Your task to perform on an android device: See recent photos Image 0: 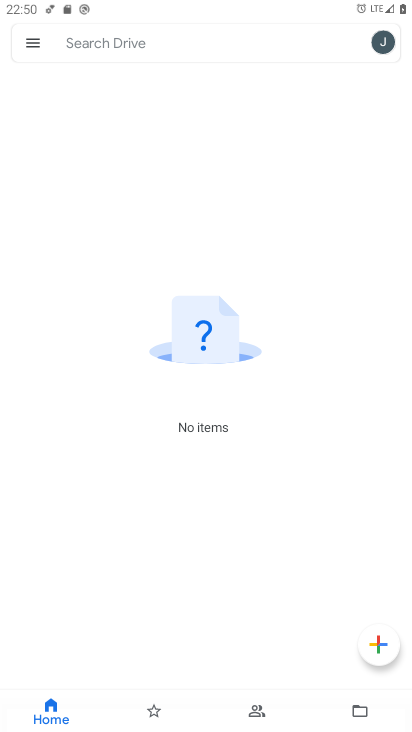
Step 0: press home button
Your task to perform on an android device: See recent photos Image 1: 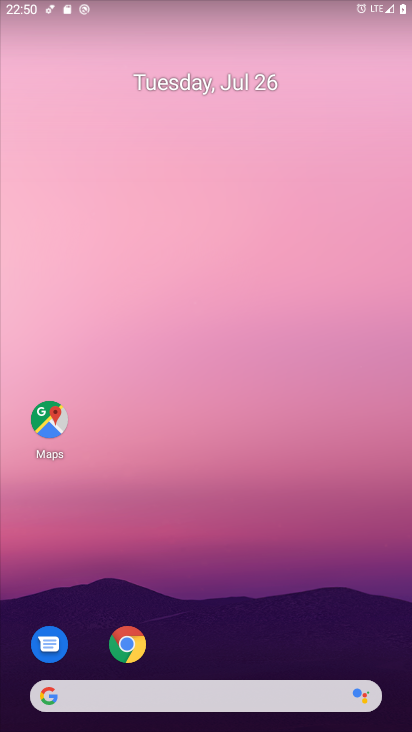
Step 1: drag from (197, 657) to (237, 95)
Your task to perform on an android device: See recent photos Image 2: 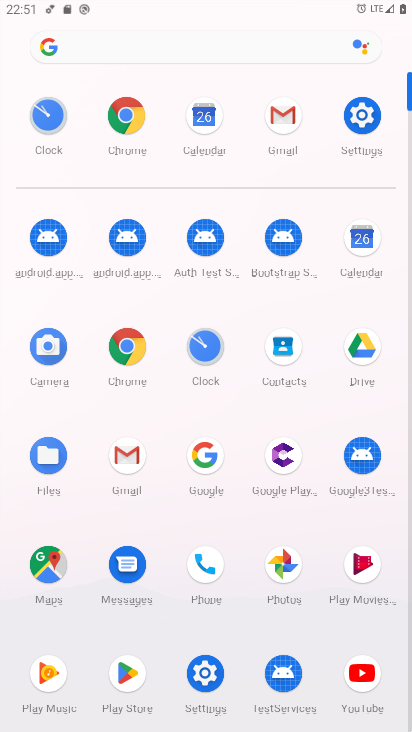
Step 2: click (280, 575)
Your task to perform on an android device: See recent photos Image 3: 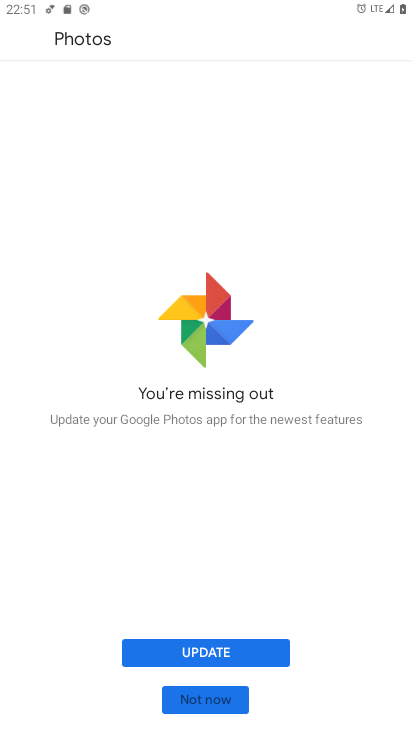
Step 3: click (193, 707)
Your task to perform on an android device: See recent photos Image 4: 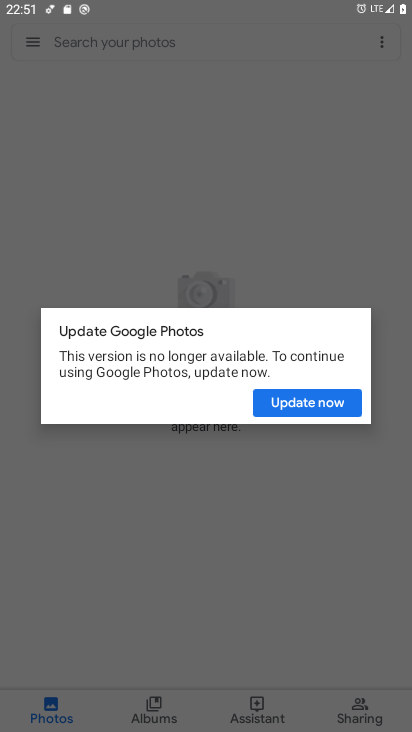
Step 4: click (305, 395)
Your task to perform on an android device: See recent photos Image 5: 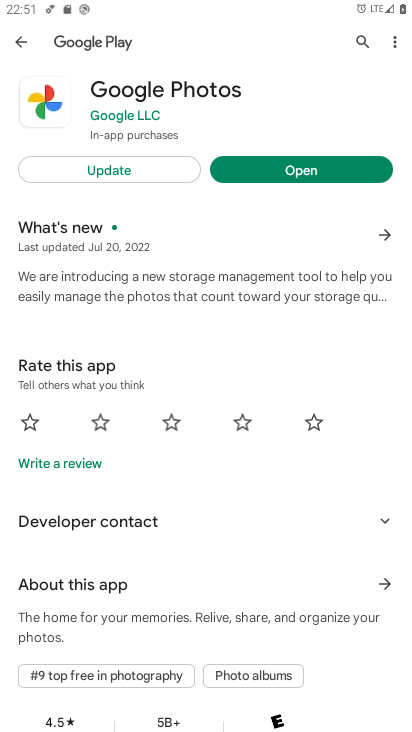
Step 5: click (334, 180)
Your task to perform on an android device: See recent photos Image 6: 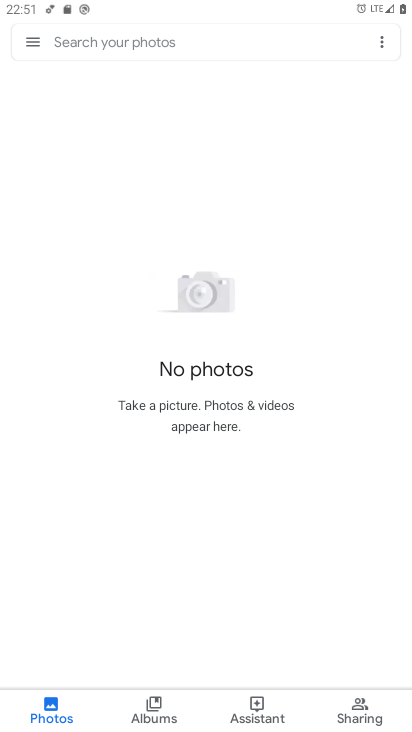
Step 6: task complete